Your task to perform on an android device: Open the Play Movies app and select the watchlist tab. Image 0: 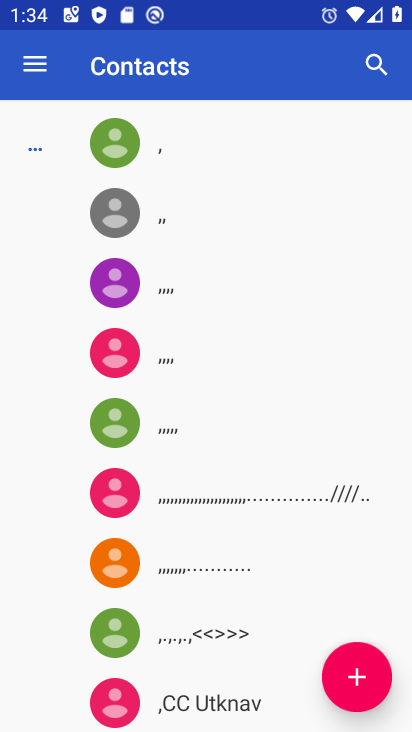
Step 0: press home button
Your task to perform on an android device: Open the Play Movies app and select the watchlist tab. Image 1: 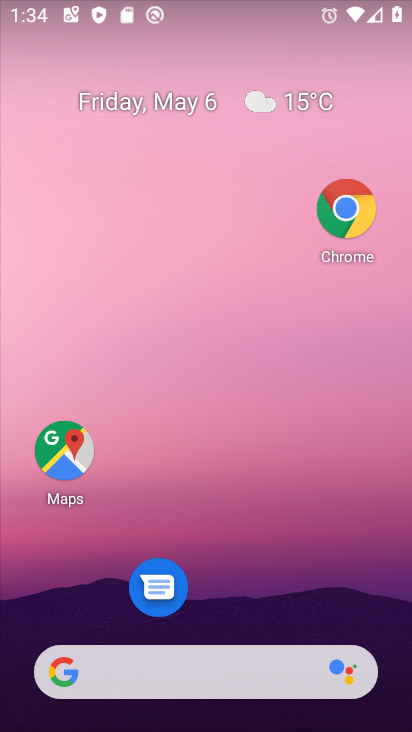
Step 1: drag from (307, 494) to (250, 247)
Your task to perform on an android device: Open the Play Movies app and select the watchlist tab. Image 2: 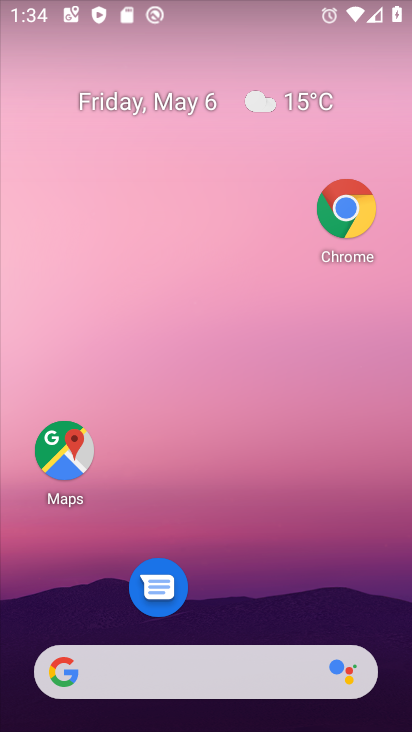
Step 2: drag from (250, 250) to (257, 167)
Your task to perform on an android device: Open the Play Movies app and select the watchlist tab. Image 3: 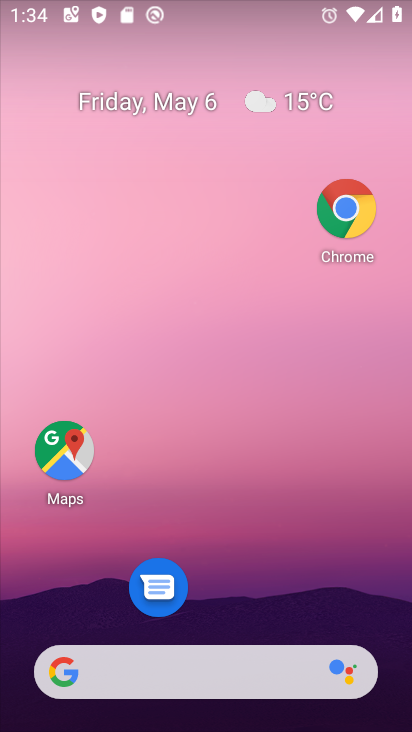
Step 3: drag from (277, 573) to (266, 48)
Your task to perform on an android device: Open the Play Movies app and select the watchlist tab. Image 4: 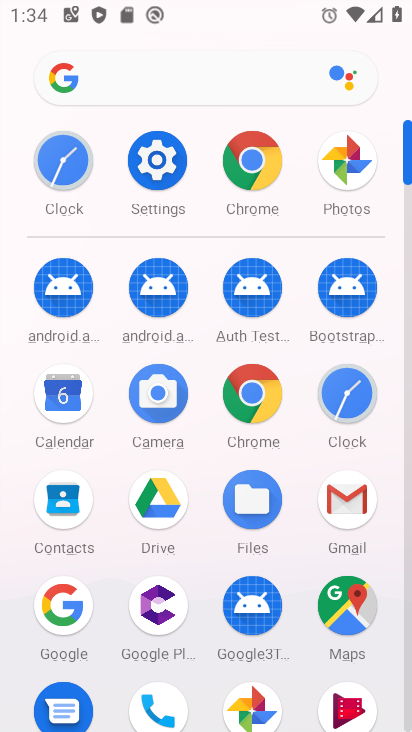
Step 4: click (295, 287)
Your task to perform on an android device: Open the Play Movies app and select the watchlist tab. Image 5: 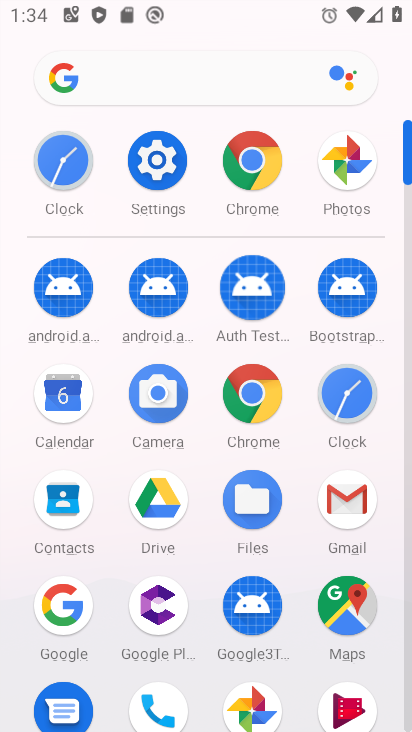
Step 5: drag from (293, 444) to (309, 299)
Your task to perform on an android device: Open the Play Movies app and select the watchlist tab. Image 6: 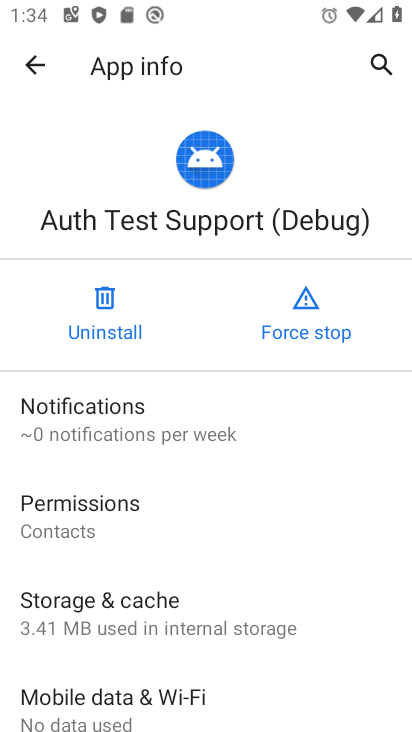
Step 6: click (20, 60)
Your task to perform on an android device: Open the Play Movies app and select the watchlist tab. Image 7: 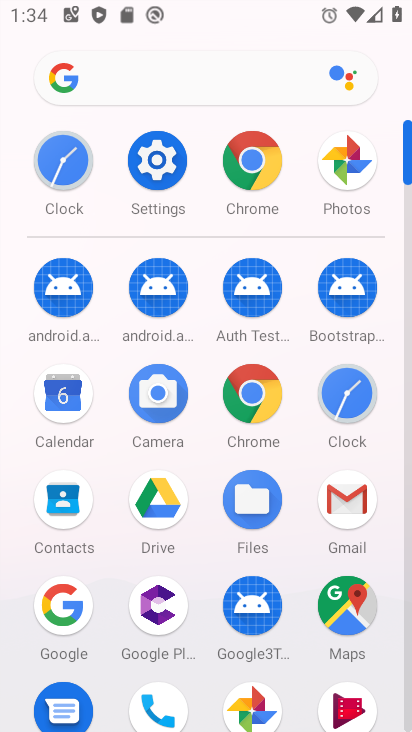
Step 7: drag from (283, 631) to (296, 316)
Your task to perform on an android device: Open the Play Movies app and select the watchlist tab. Image 8: 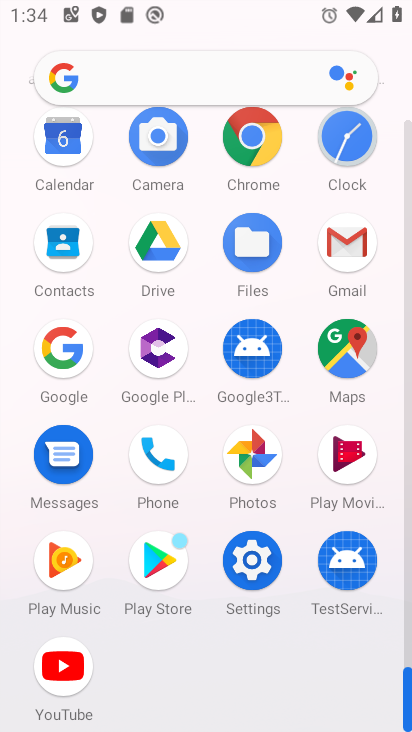
Step 8: click (344, 466)
Your task to perform on an android device: Open the Play Movies app and select the watchlist tab. Image 9: 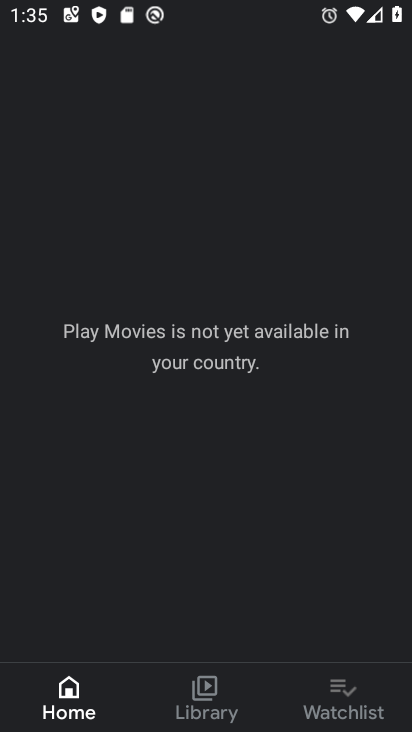
Step 9: click (342, 706)
Your task to perform on an android device: Open the Play Movies app and select the watchlist tab. Image 10: 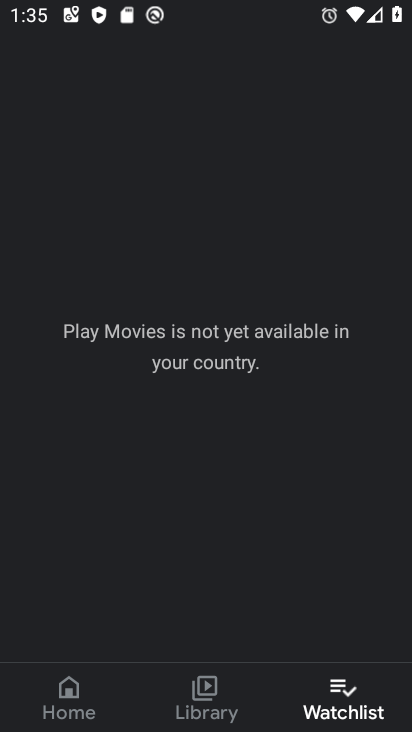
Step 10: task complete